Your task to perform on an android device: turn off sleep mode Image 0: 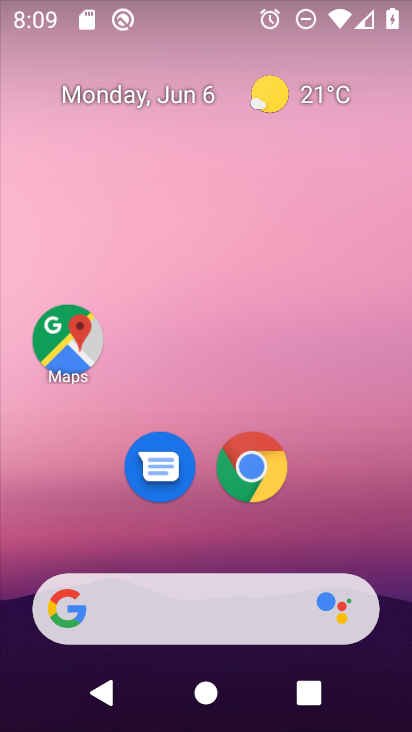
Step 0: drag from (376, 538) to (361, 141)
Your task to perform on an android device: turn off sleep mode Image 1: 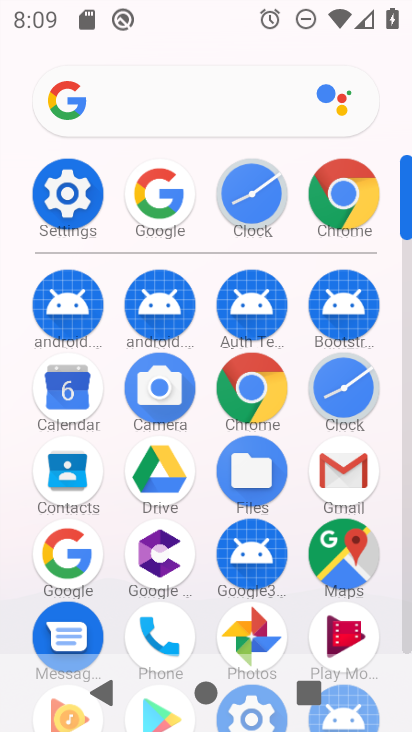
Step 1: click (75, 212)
Your task to perform on an android device: turn off sleep mode Image 2: 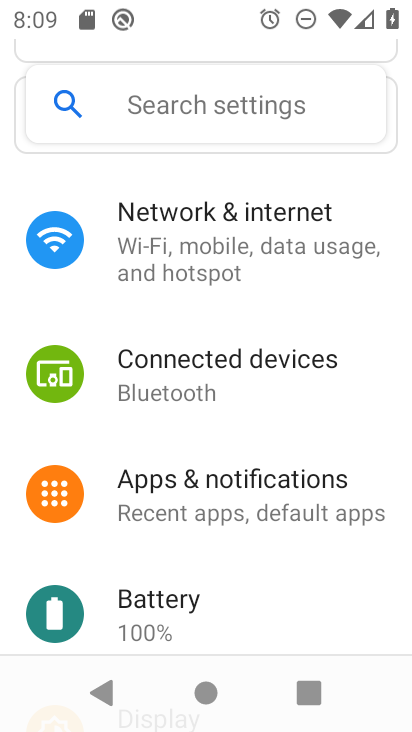
Step 2: drag from (351, 430) to (371, 326)
Your task to perform on an android device: turn off sleep mode Image 3: 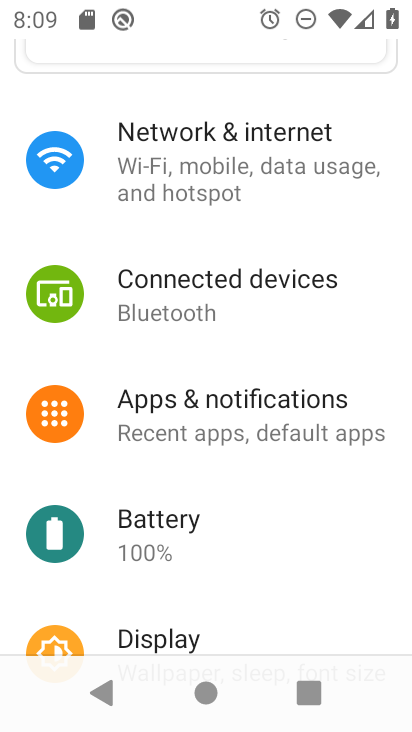
Step 3: drag from (356, 554) to (339, 383)
Your task to perform on an android device: turn off sleep mode Image 4: 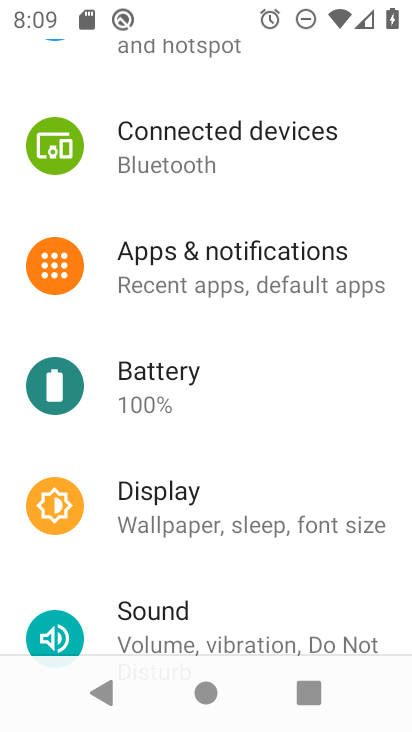
Step 4: click (271, 516)
Your task to perform on an android device: turn off sleep mode Image 5: 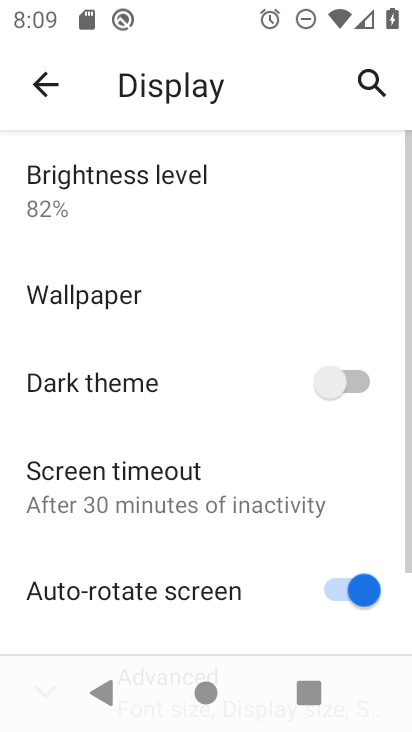
Step 5: drag from (270, 529) to (244, 385)
Your task to perform on an android device: turn off sleep mode Image 6: 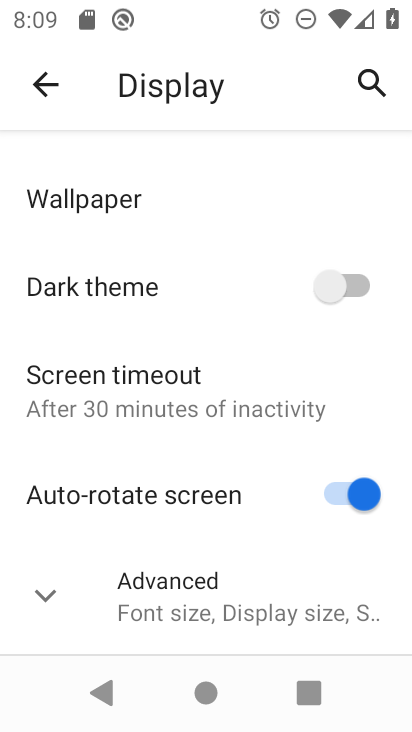
Step 6: click (232, 596)
Your task to perform on an android device: turn off sleep mode Image 7: 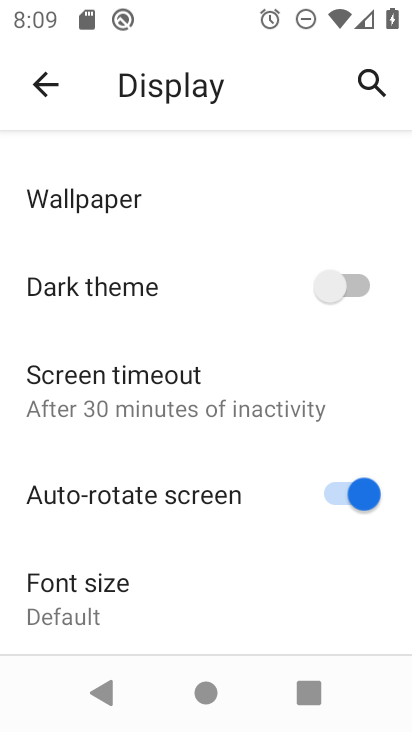
Step 7: task complete